Your task to perform on an android device: find which apps use the phone's location Image 0: 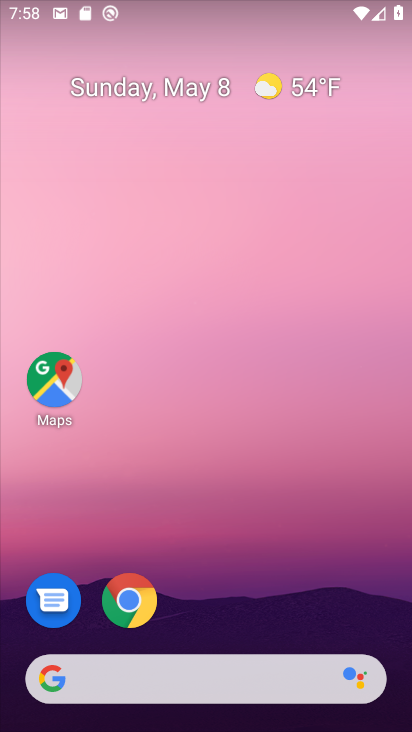
Step 0: drag from (261, 663) to (325, 127)
Your task to perform on an android device: find which apps use the phone's location Image 1: 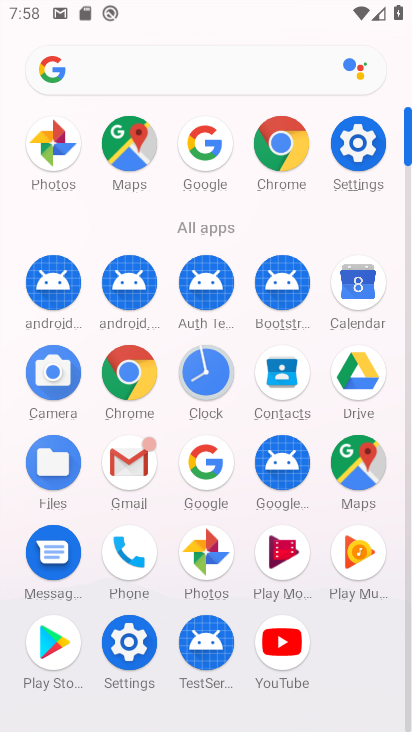
Step 1: click (354, 162)
Your task to perform on an android device: find which apps use the phone's location Image 2: 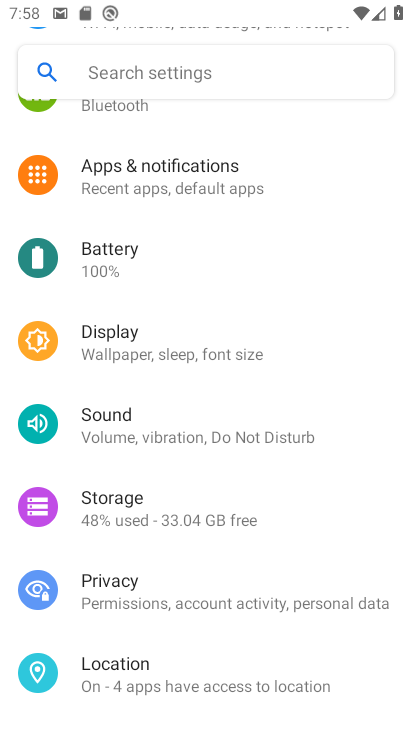
Step 2: drag from (240, 414) to (241, 295)
Your task to perform on an android device: find which apps use the phone's location Image 3: 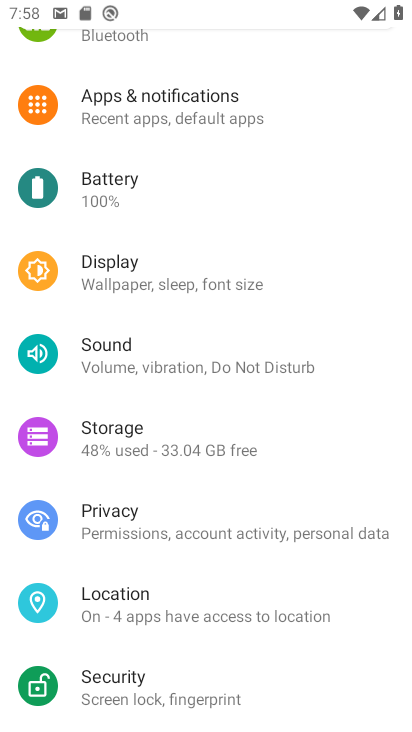
Step 3: click (224, 595)
Your task to perform on an android device: find which apps use the phone's location Image 4: 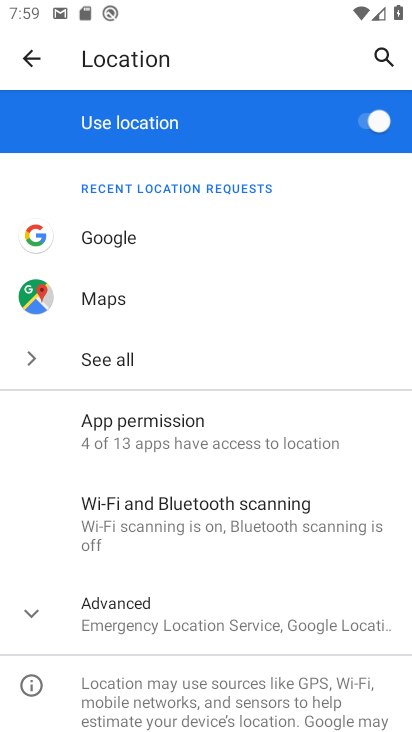
Step 4: click (185, 369)
Your task to perform on an android device: find which apps use the phone's location Image 5: 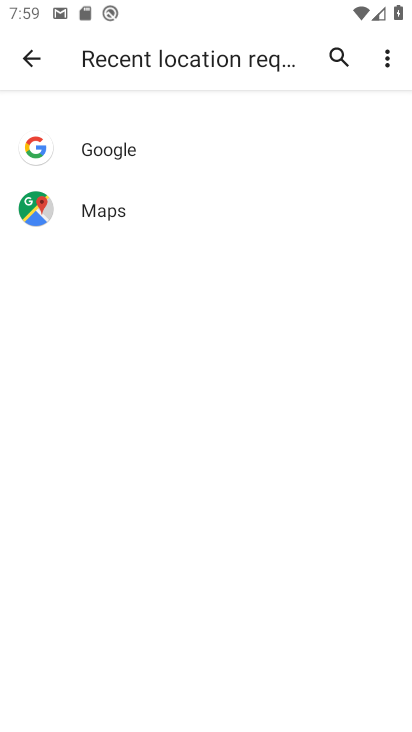
Step 5: task complete